Your task to perform on an android device: set the timer Image 0: 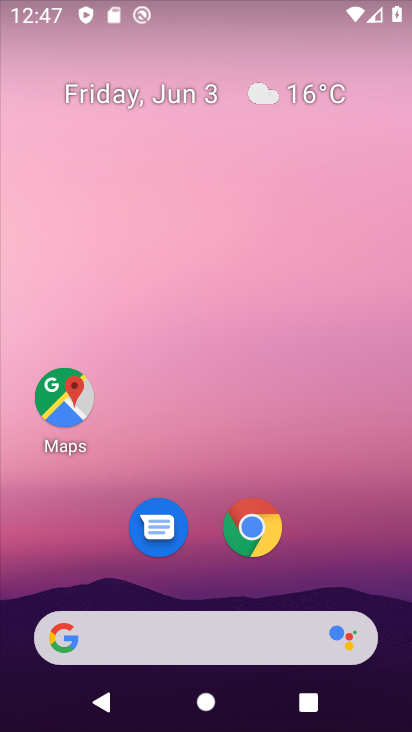
Step 0: drag from (331, 561) to (288, 85)
Your task to perform on an android device: set the timer Image 1: 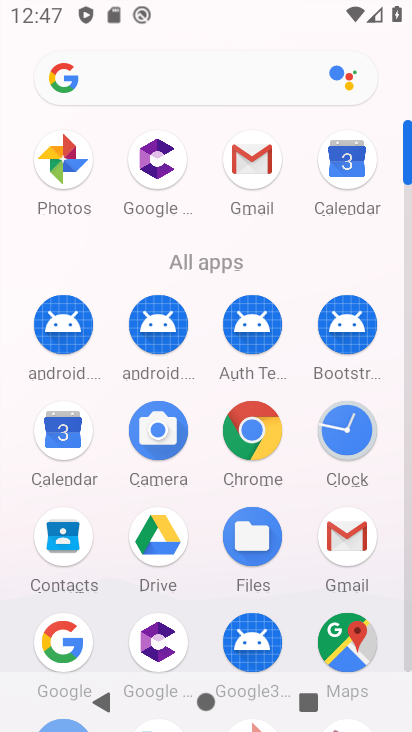
Step 1: click (350, 420)
Your task to perform on an android device: set the timer Image 2: 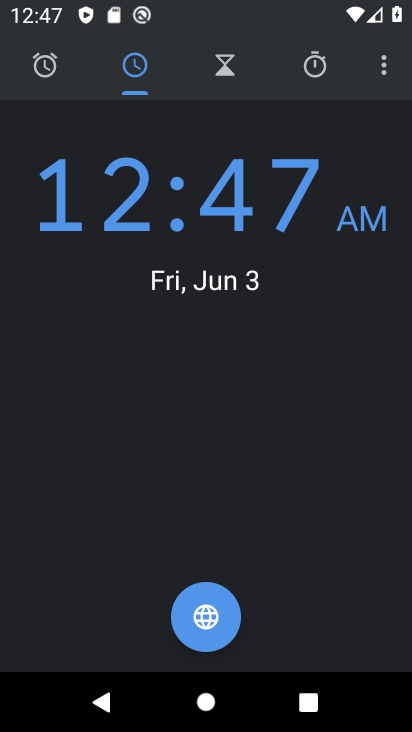
Step 2: click (128, 68)
Your task to perform on an android device: set the timer Image 3: 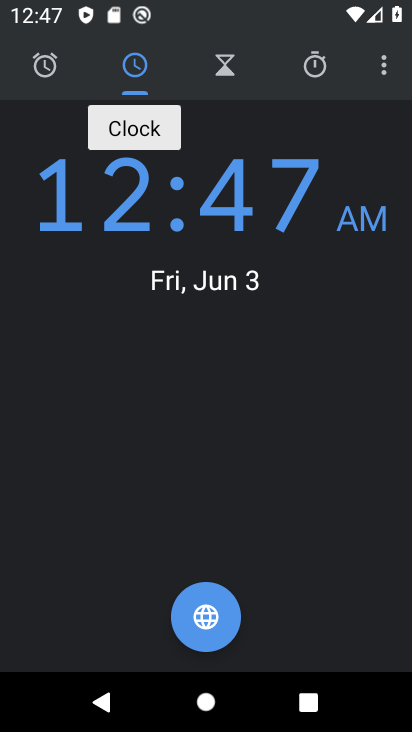
Step 3: click (234, 69)
Your task to perform on an android device: set the timer Image 4: 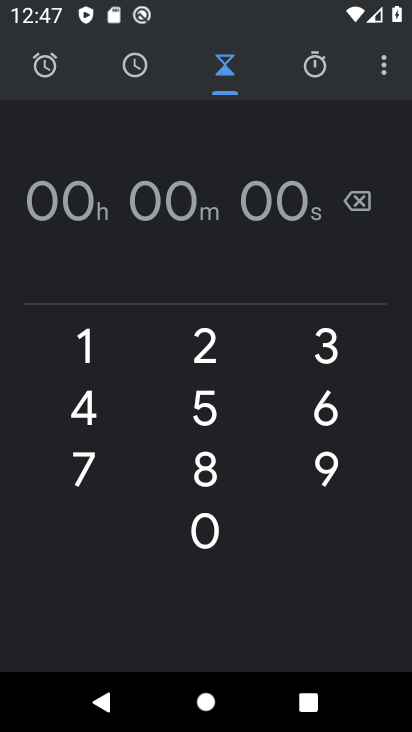
Step 4: click (233, 68)
Your task to perform on an android device: set the timer Image 5: 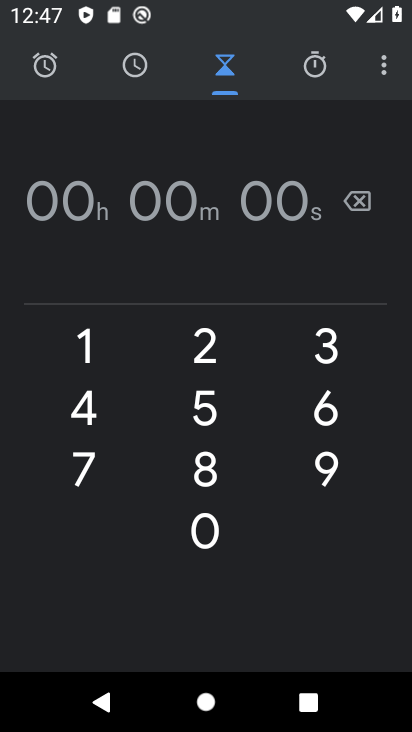
Step 5: click (97, 402)
Your task to perform on an android device: set the timer Image 6: 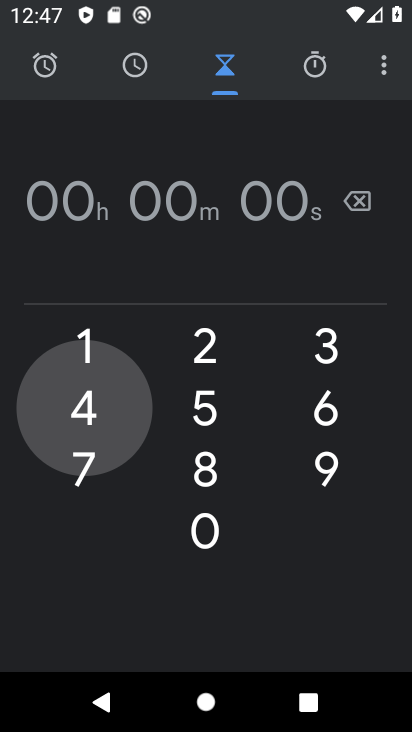
Step 6: click (91, 407)
Your task to perform on an android device: set the timer Image 7: 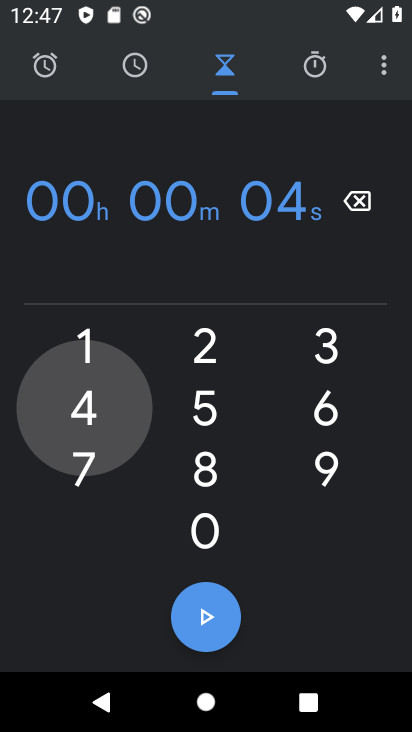
Step 7: click (83, 412)
Your task to perform on an android device: set the timer Image 8: 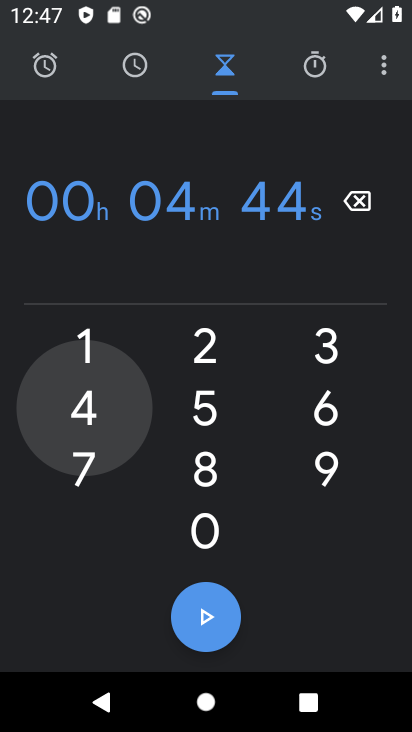
Step 8: click (83, 412)
Your task to perform on an android device: set the timer Image 9: 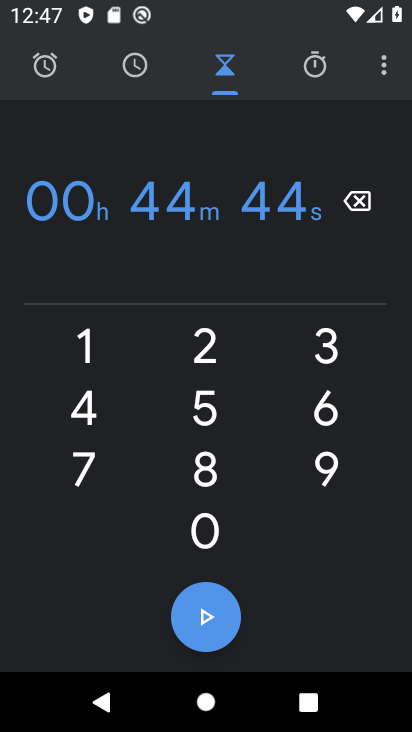
Step 9: click (83, 413)
Your task to perform on an android device: set the timer Image 10: 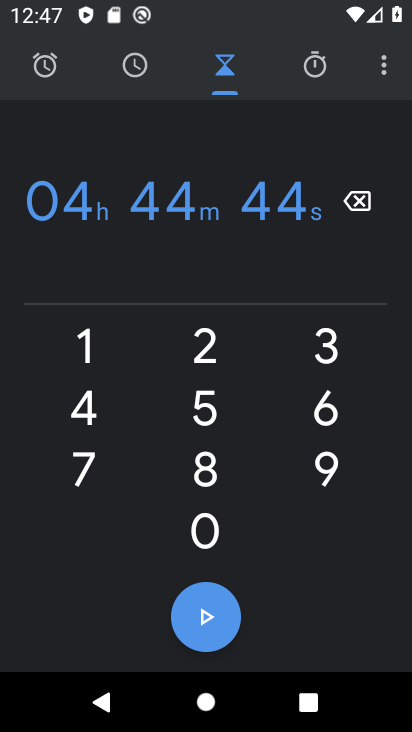
Step 10: click (83, 414)
Your task to perform on an android device: set the timer Image 11: 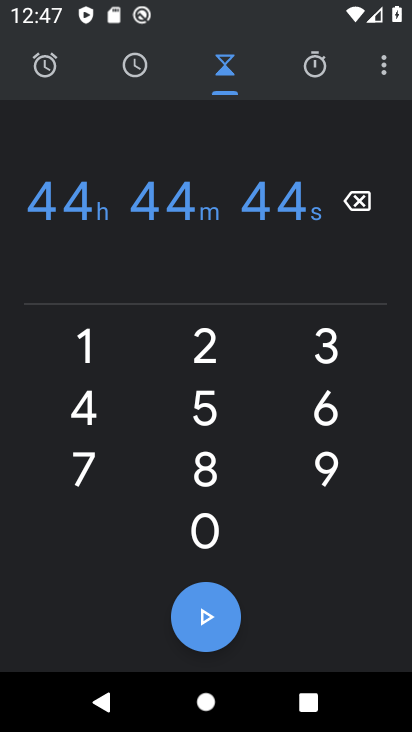
Step 11: click (190, 626)
Your task to perform on an android device: set the timer Image 12: 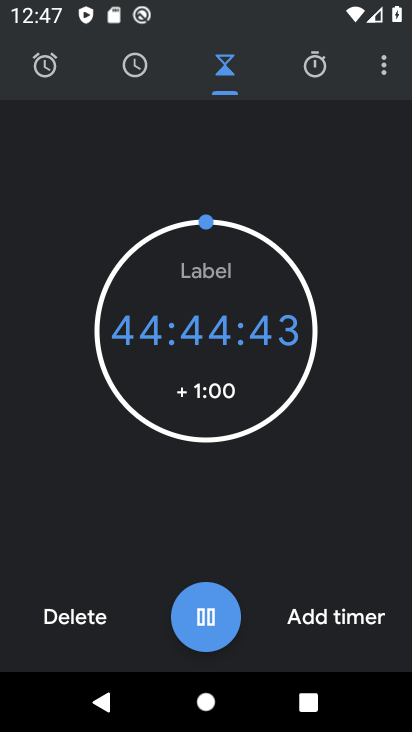
Step 12: task complete